Your task to perform on an android device: turn off priority inbox in the gmail app Image 0: 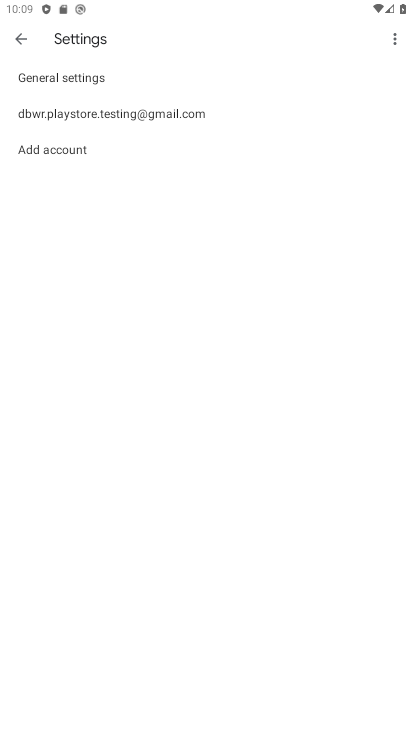
Step 0: press home button
Your task to perform on an android device: turn off priority inbox in the gmail app Image 1: 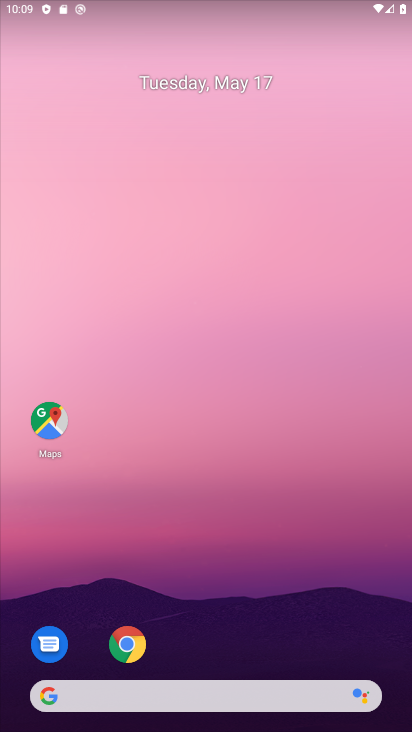
Step 1: drag from (218, 638) to (313, 196)
Your task to perform on an android device: turn off priority inbox in the gmail app Image 2: 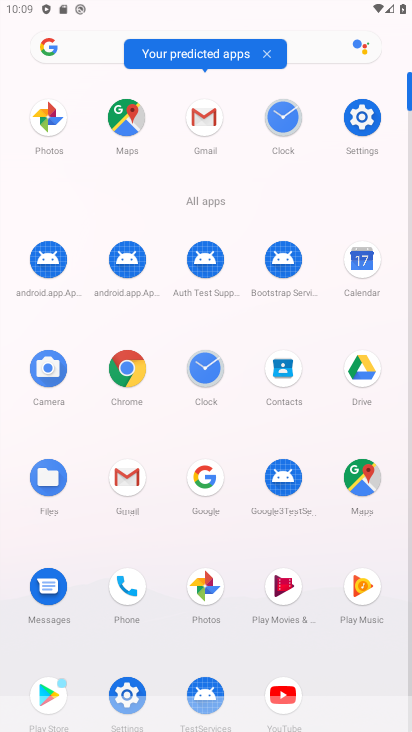
Step 2: click (130, 482)
Your task to perform on an android device: turn off priority inbox in the gmail app Image 3: 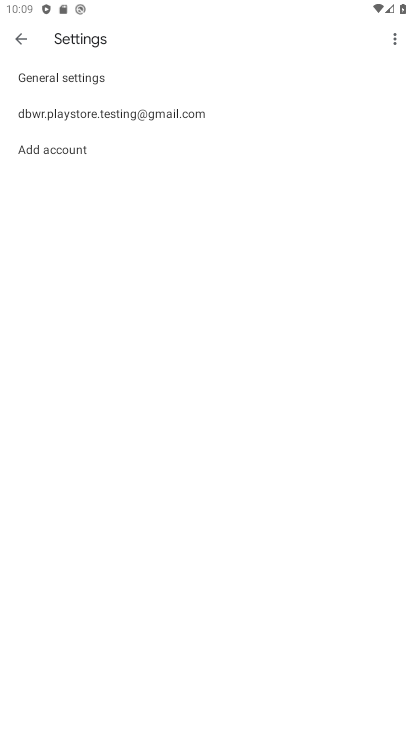
Step 3: click (225, 123)
Your task to perform on an android device: turn off priority inbox in the gmail app Image 4: 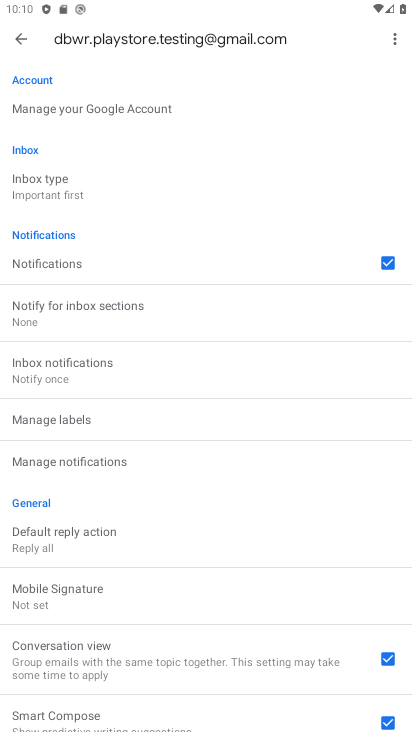
Step 4: click (123, 186)
Your task to perform on an android device: turn off priority inbox in the gmail app Image 5: 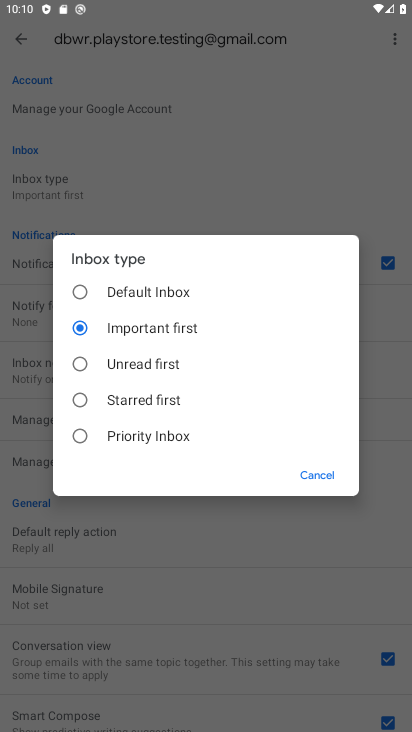
Step 5: task complete